Your task to perform on an android device: Open location settings Image 0: 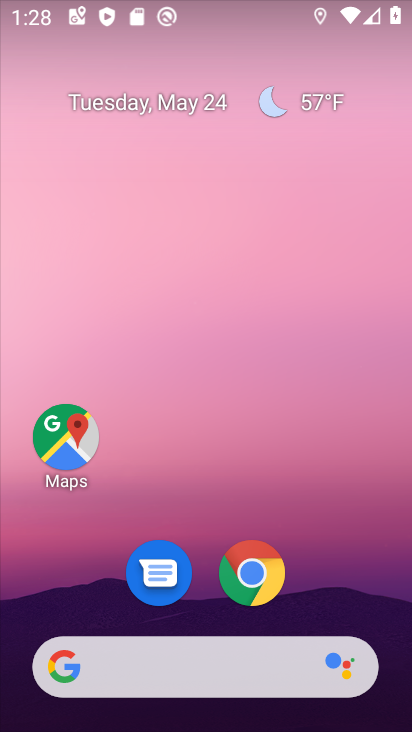
Step 0: drag from (368, 582) to (305, 160)
Your task to perform on an android device: Open location settings Image 1: 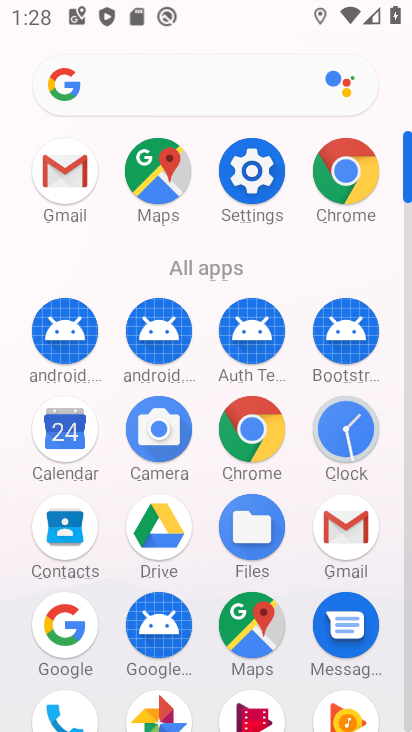
Step 1: click (251, 186)
Your task to perform on an android device: Open location settings Image 2: 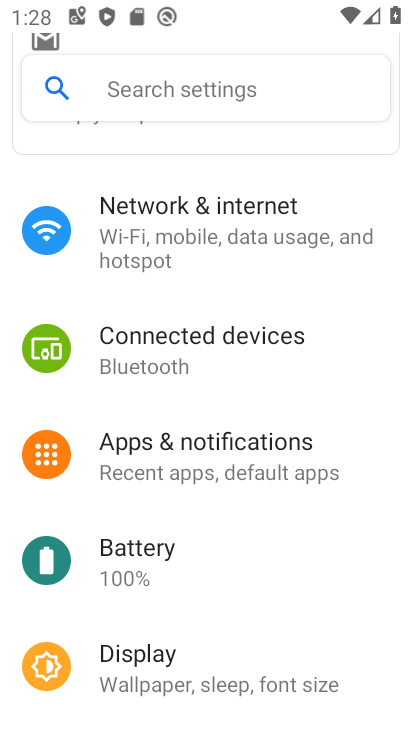
Step 2: drag from (306, 600) to (298, 269)
Your task to perform on an android device: Open location settings Image 3: 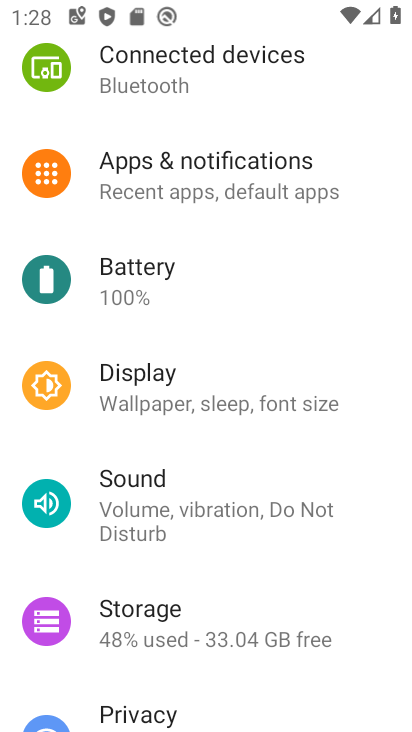
Step 3: drag from (296, 619) to (304, 214)
Your task to perform on an android device: Open location settings Image 4: 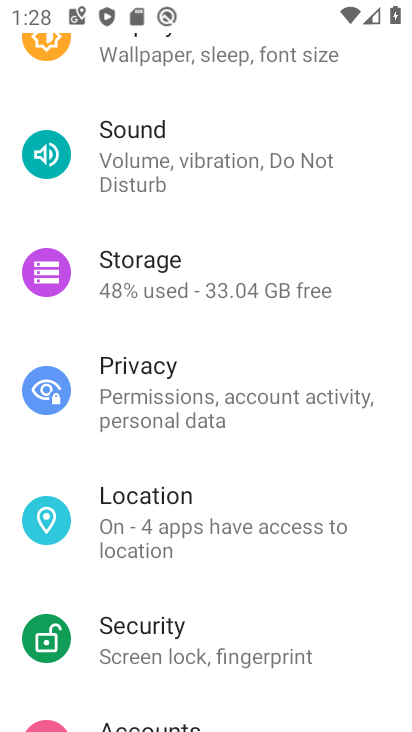
Step 4: click (250, 508)
Your task to perform on an android device: Open location settings Image 5: 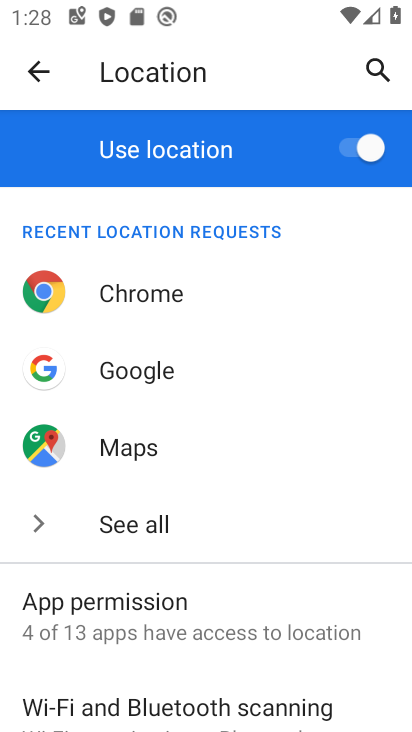
Step 5: drag from (255, 578) to (262, 390)
Your task to perform on an android device: Open location settings Image 6: 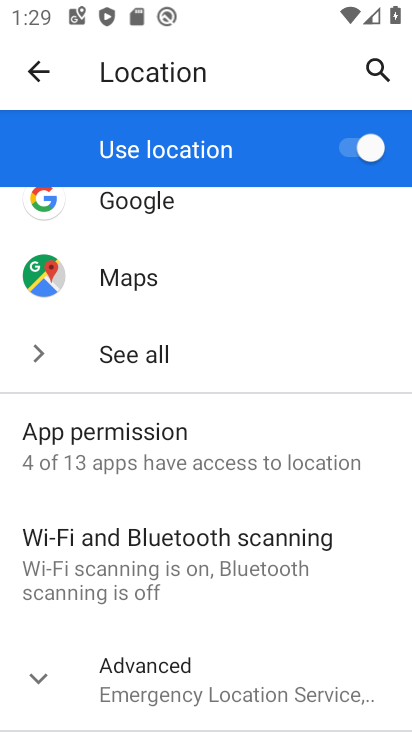
Step 6: drag from (297, 596) to (285, 378)
Your task to perform on an android device: Open location settings Image 7: 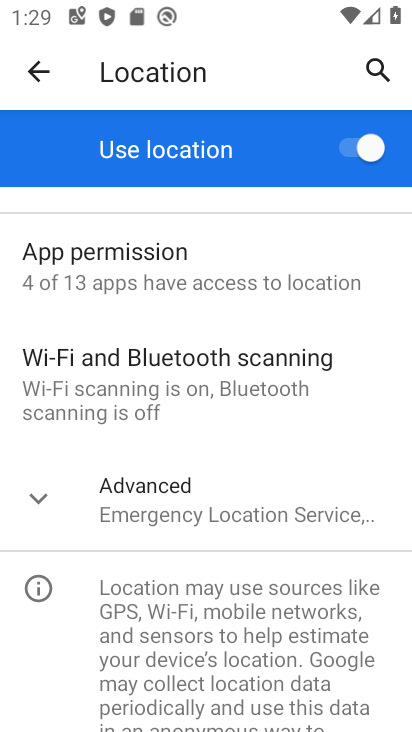
Step 7: click (243, 514)
Your task to perform on an android device: Open location settings Image 8: 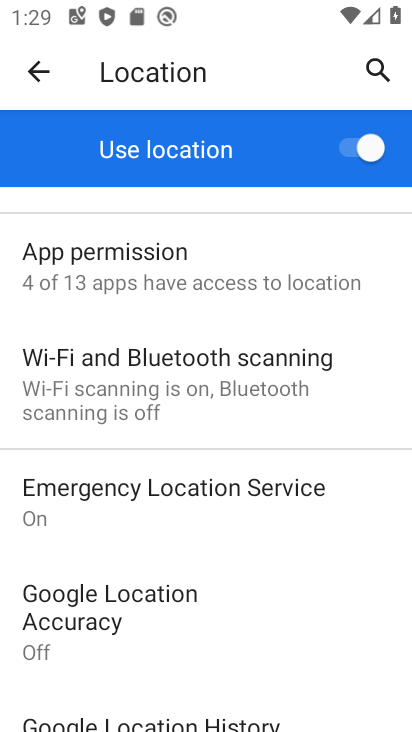
Step 8: task complete